Your task to perform on an android device: Open location settings Image 0: 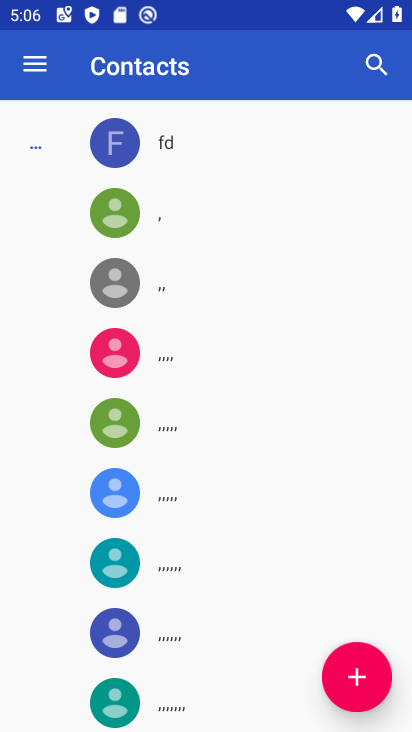
Step 0: press back button
Your task to perform on an android device: Open location settings Image 1: 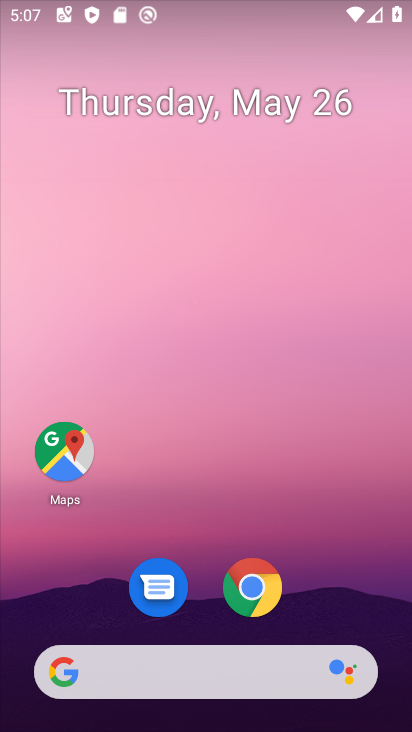
Step 1: drag from (304, 514) to (271, 77)
Your task to perform on an android device: Open location settings Image 2: 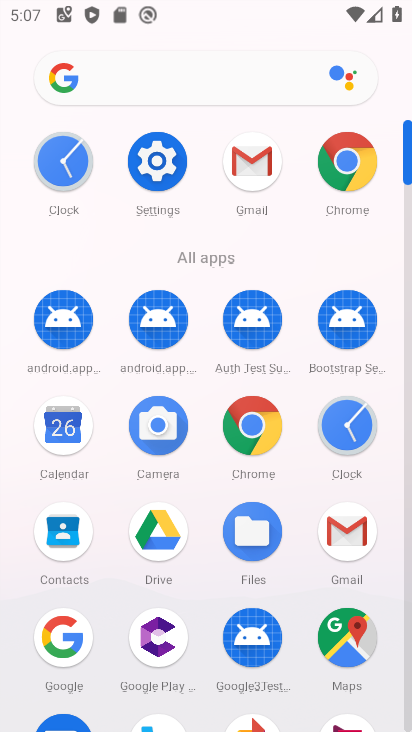
Step 2: click (159, 163)
Your task to perform on an android device: Open location settings Image 3: 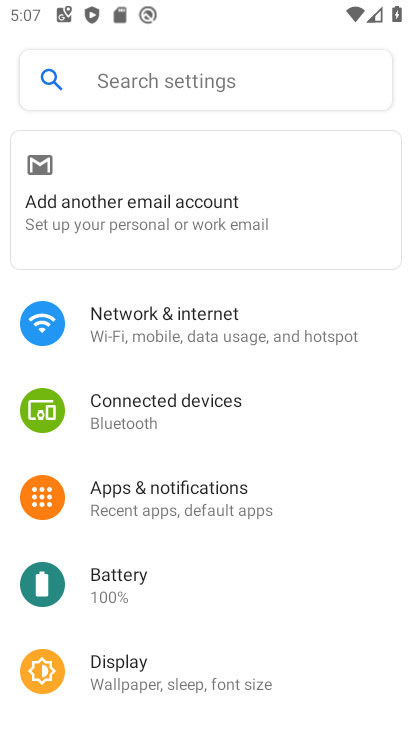
Step 3: drag from (179, 569) to (209, 394)
Your task to perform on an android device: Open location settings Image 4: 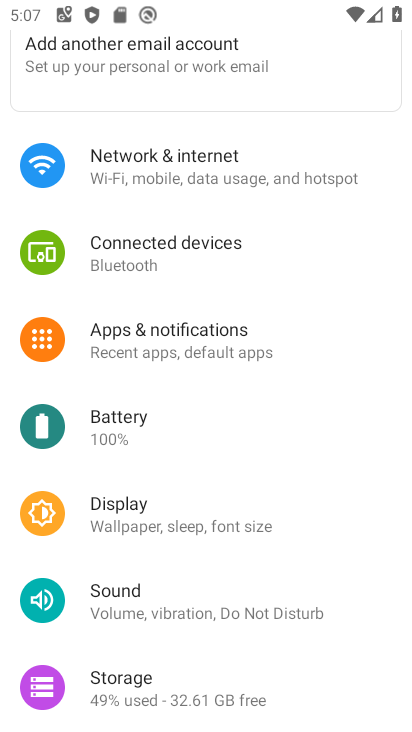
Step 4: drag from (211, 571) to (206, 390)
Your task to perform on an android device: Open location settings Image 5: 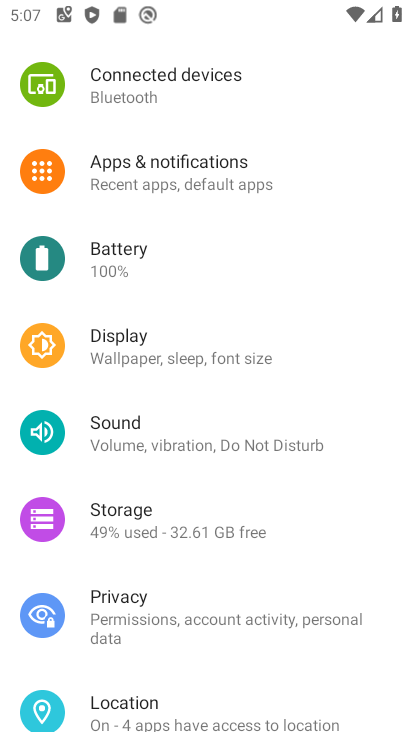
Step 5: drag from (157, 573) to (211, 391)
Your task to perform on an android device: Open location settings Image 6: 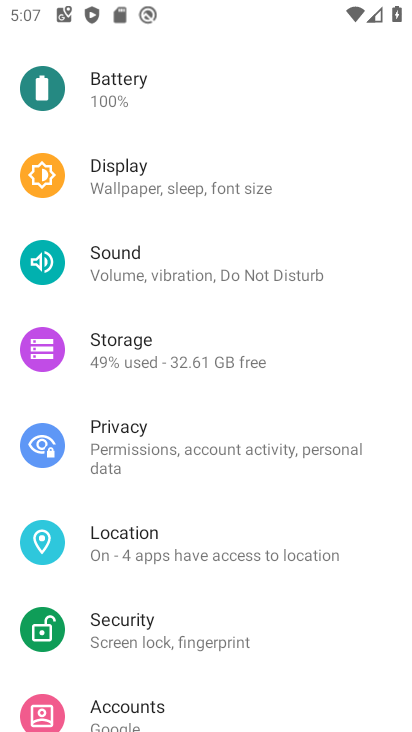
Step 6: click (167, 558)
Your task to perform on an android device: Open location settings Image 7: 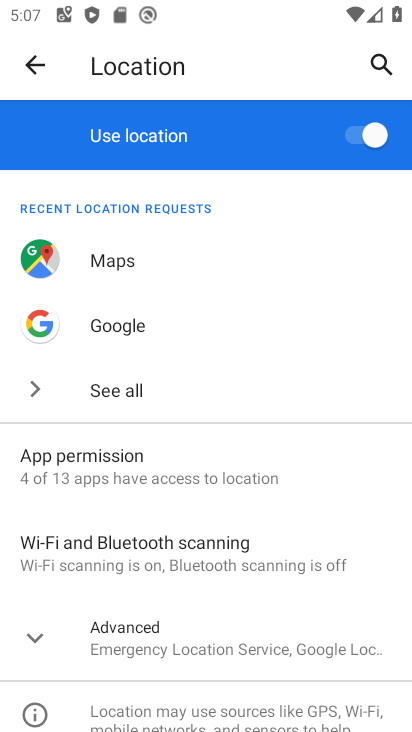
Step 7: task complete